Your task to perform on an android device: choose inbox layout in the gmail app Image 0: 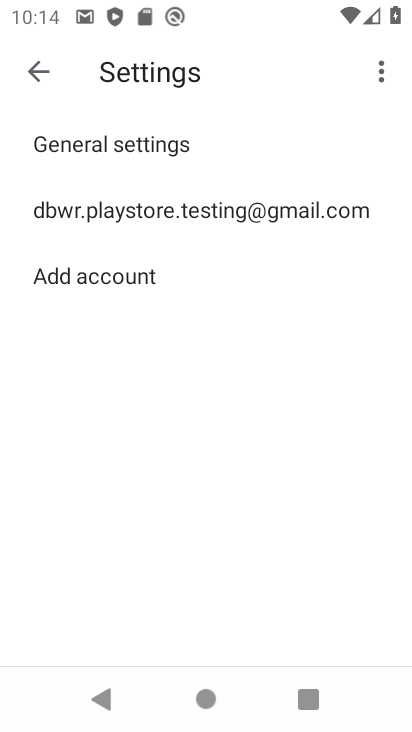
Step 0: press home button
Your task to perform on an android device: choose inbox layout in the gmail app Image 1: 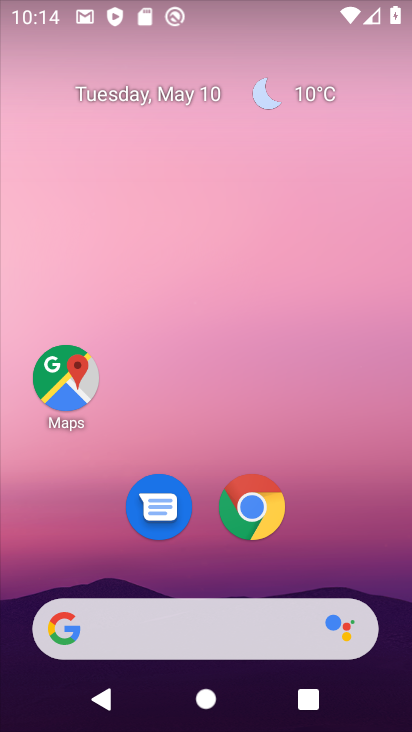
Step 1: drag from (229, 728) to (200, 175)
Your task to perform on an android device: choose inbox layout in the gmail app Image 2: 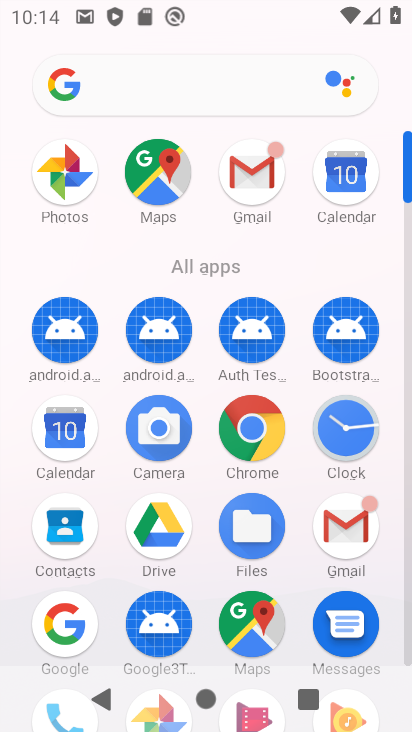
Step 2: click (335, 523)
Your task to perform on an android device: choose inbox layout in the gmail app Image 3: 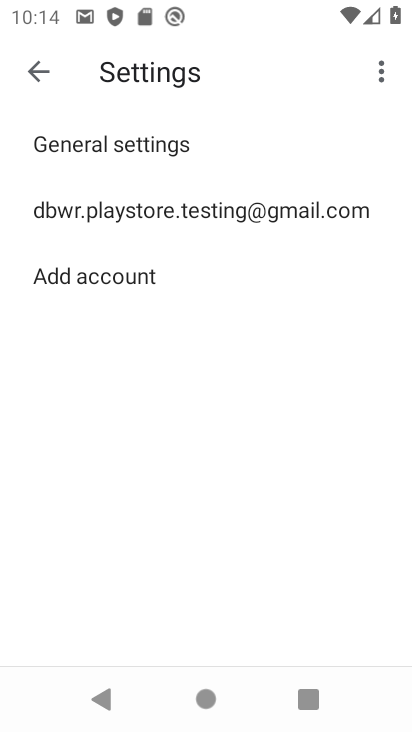
Step 3: click (171, 213)
Your task to perform on an android device: choose inbox layout in the gmail app Image 4: 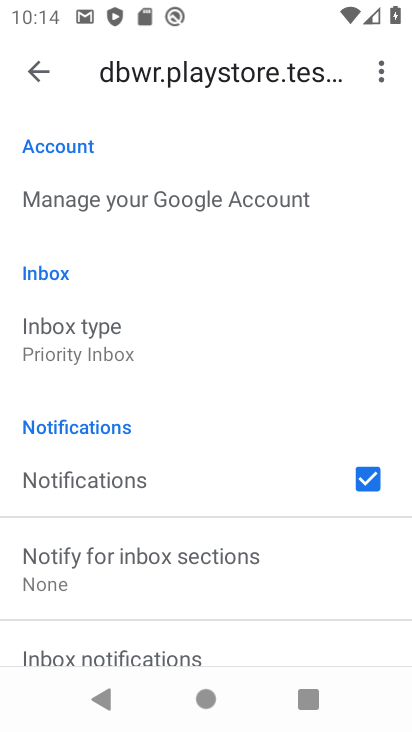
Step 4: click (75, 342)
Your task to perform on an android device: choose inbox layout in the gmail app Image 5: 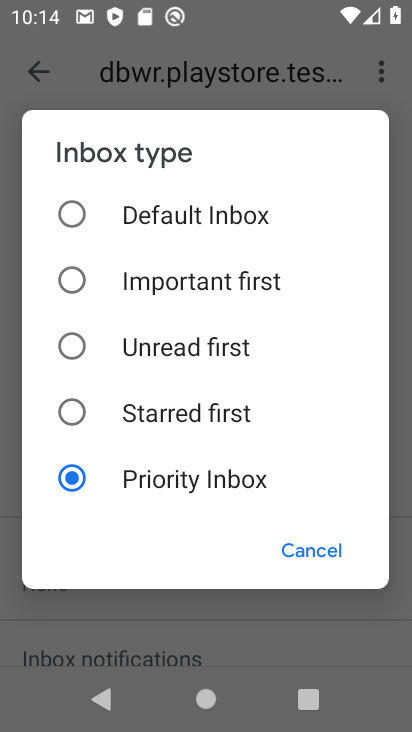
Step 5: click (144, 209)
Your task to perform on an android device: choose inbox layout in the gmail app Image 6: 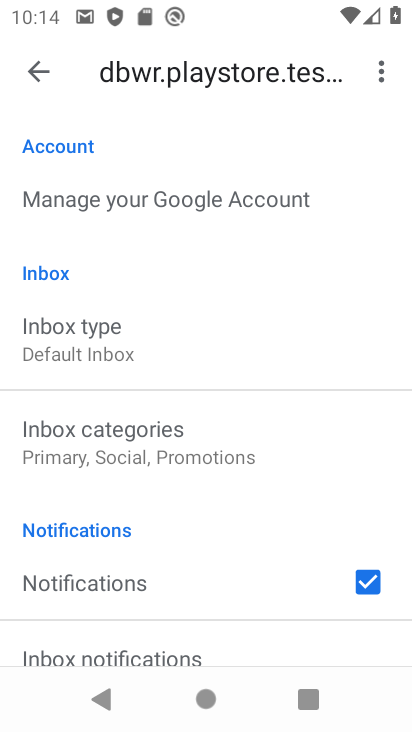
Step 6: task complete